Your task to perform on an android device: turn off improve location accuracy Image 0: 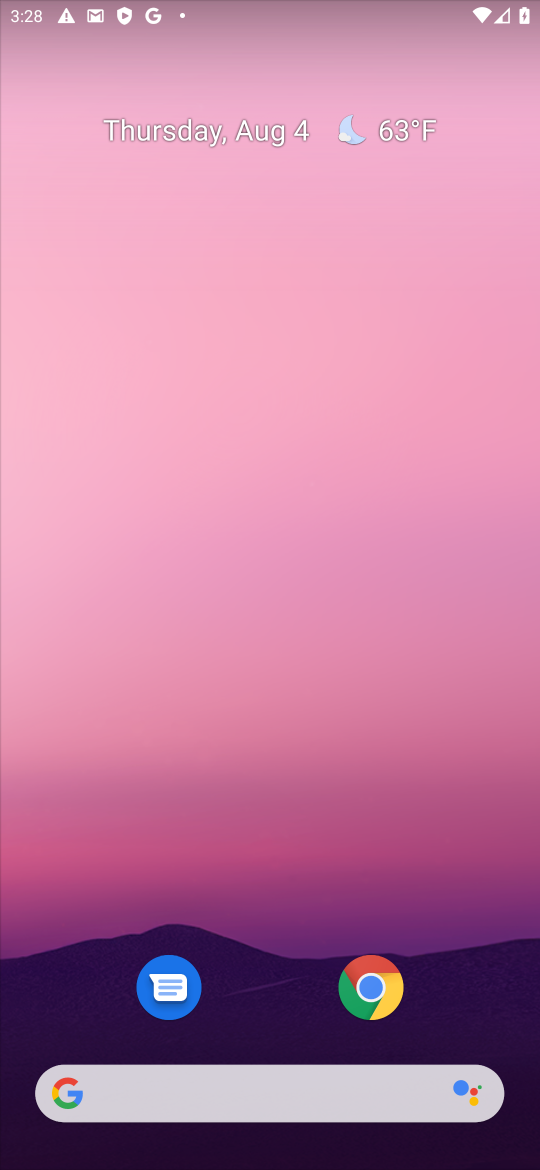
Step 0: drag from (270, 972) to (274, 216)
Your task to perform on an android device: turn off improve location accuracy Image 1: 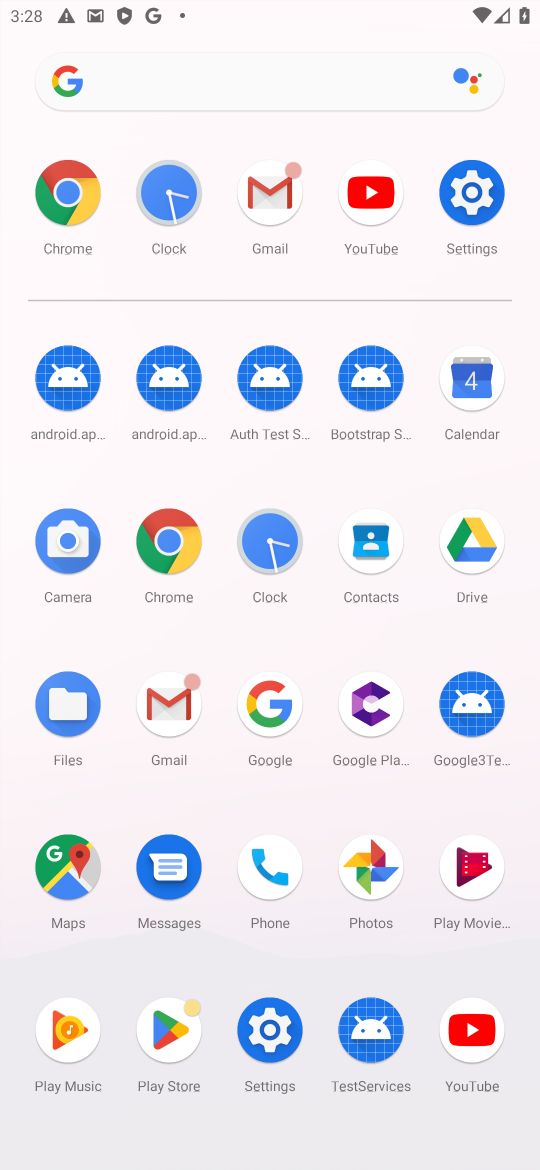
Step 1: click (473, 197)
Your task to perform on an android device: turn off improve location accuracy Image 2: 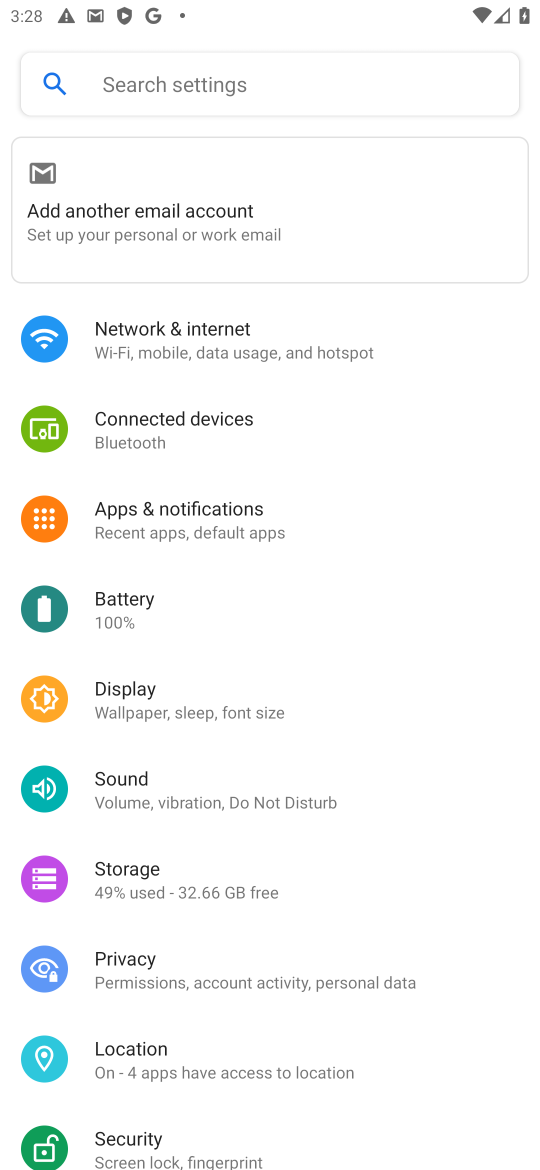
Step 2: click (144, 1067)
Your task to perform on an android device: turn off improve location accuracy Image 3: 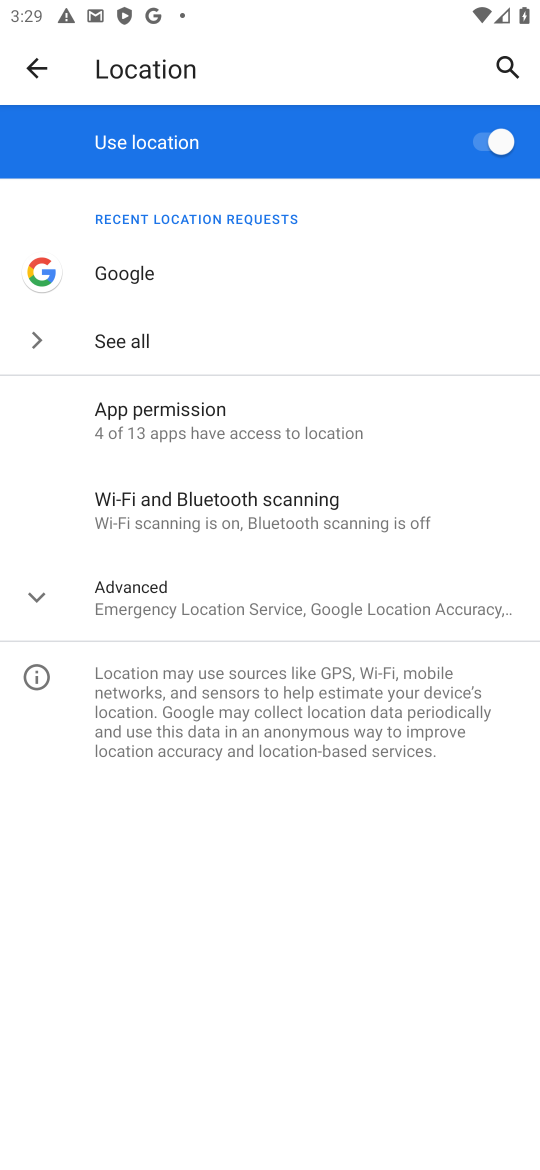
Step 3: click (212, 622)
Your task to perform on an android device: turn off improve location accuracy Image 4: 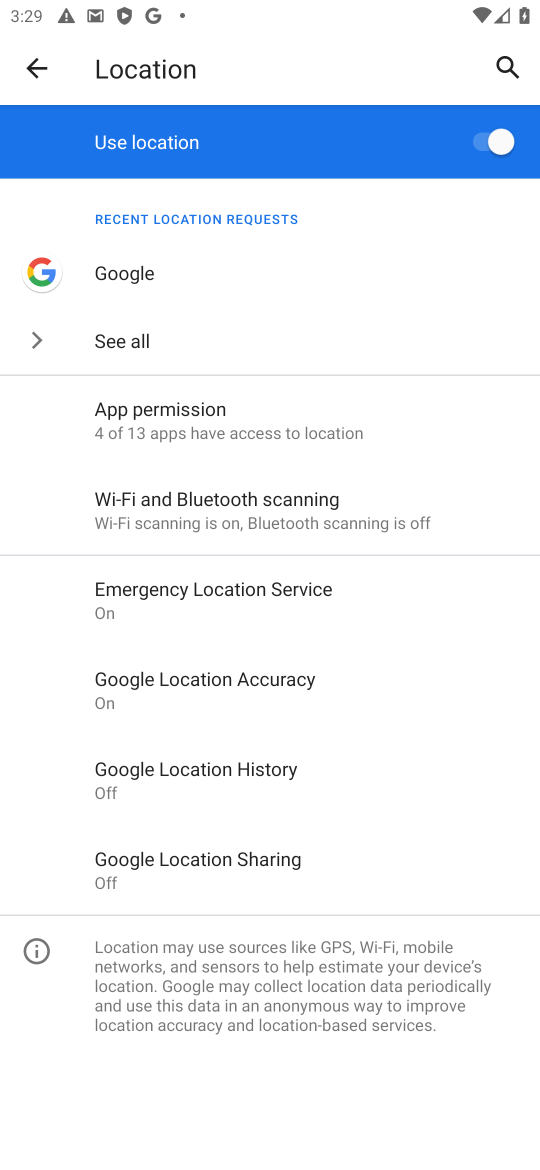
Step 4: click (202, 681)
Your task to perform on an android device: turn off improve location accuracy Image 5: 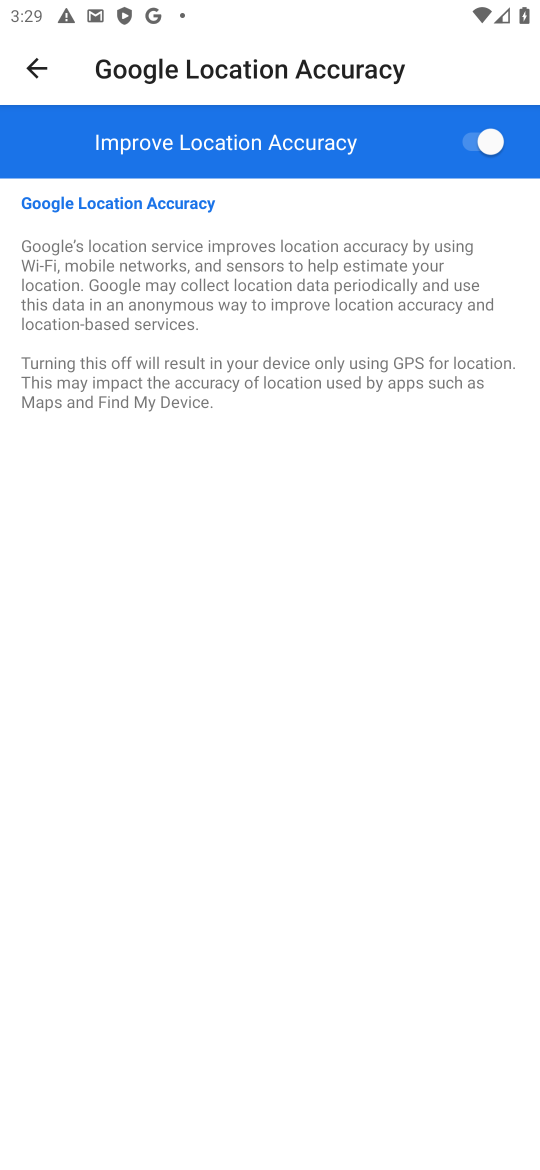
Step 5: click (462, 148)
Your task to perform on an android device: turn off improve location accuracy Image 6: 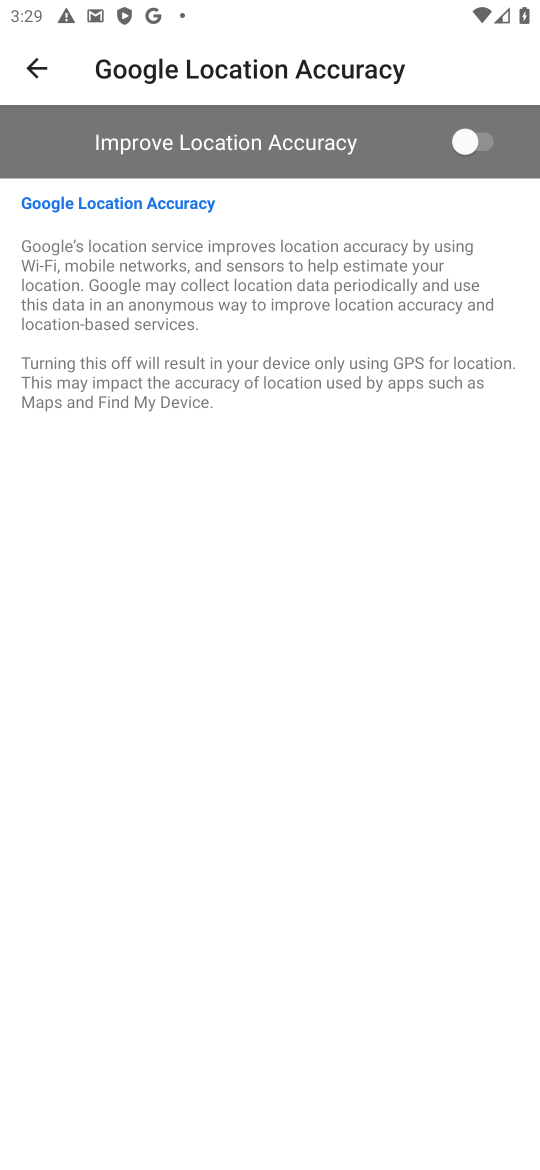
Step 6: task complete